Your task to perform on an android device: find which apps use the phone's location Image 0: 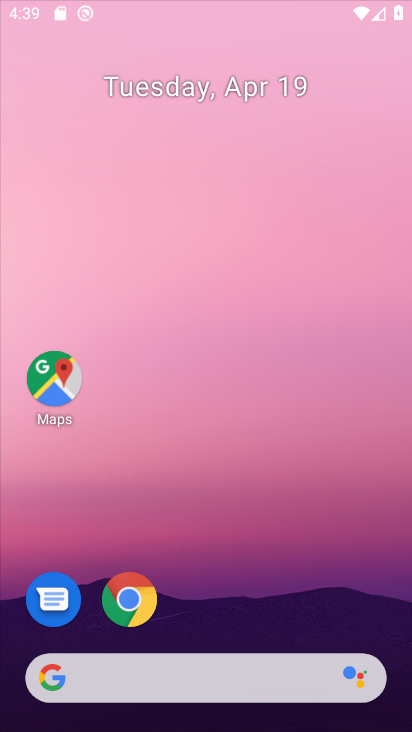
Step 0: click (364, 355)
Your task to perform on an android device: find which apps use the phone's location Image 1: 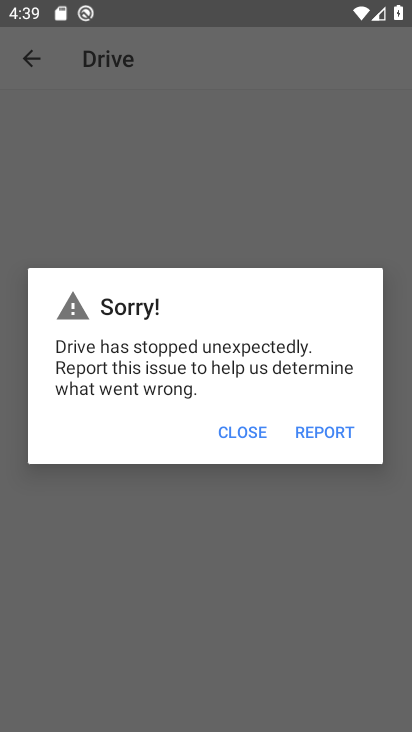
Step 1: drag from (276, 600) to (276, 532)
Your task to perform on an android device: find which apps use the phone's location Image 2: 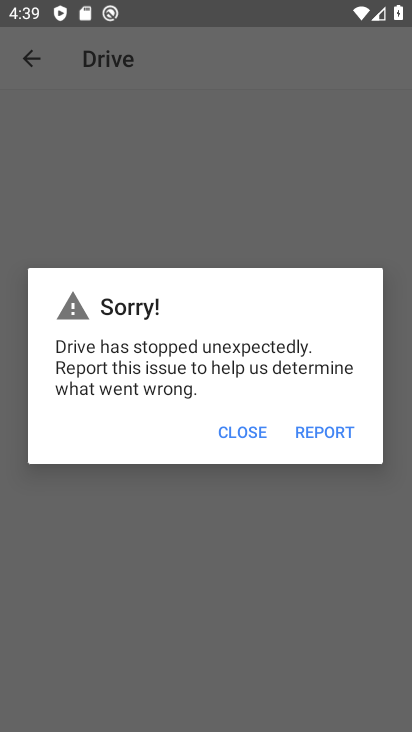
Step 2: click (252, 421)
Your task to perform on an android device: find which apps use the phone's location Image 3: 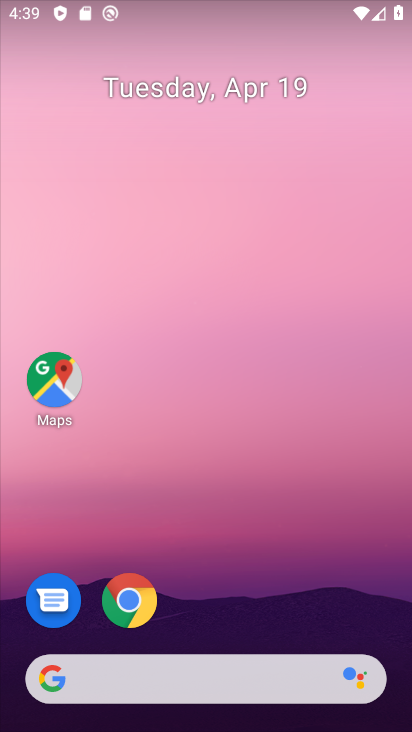
Step 3: drag from (261, 546) to (261, 21)
Your task to perform on an android device: find which apps use the phone's location Image 4: 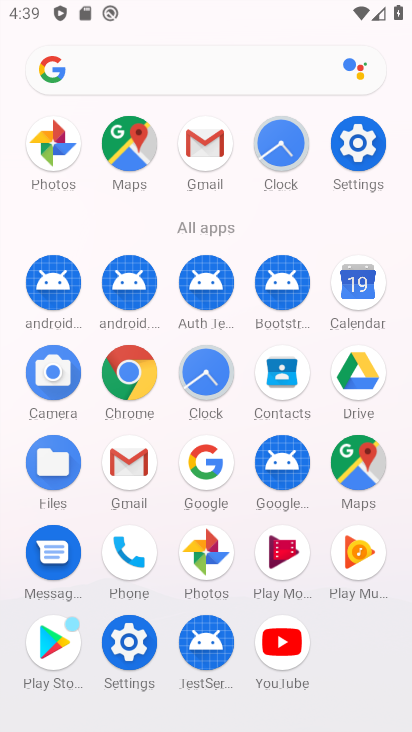
Step 4: click (359, 148)
Your task to perform on an android device: find which apps use the phone's location Image 5: 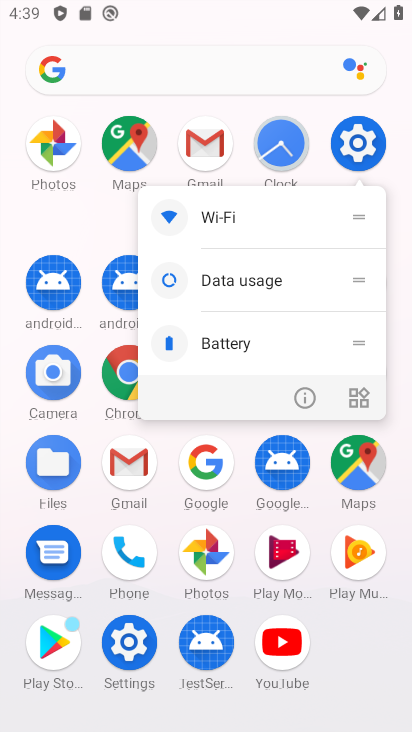
Step 5: click (359, 148)
Your task to perform on an android device: find which apps use the phone's location Image 6: 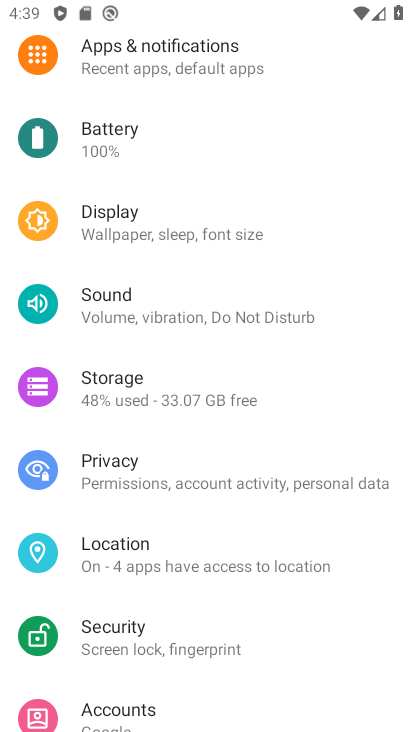
Step 6: click (193, 558)
Your task to perform on an android device: find which apps use the phone's location Image 7: 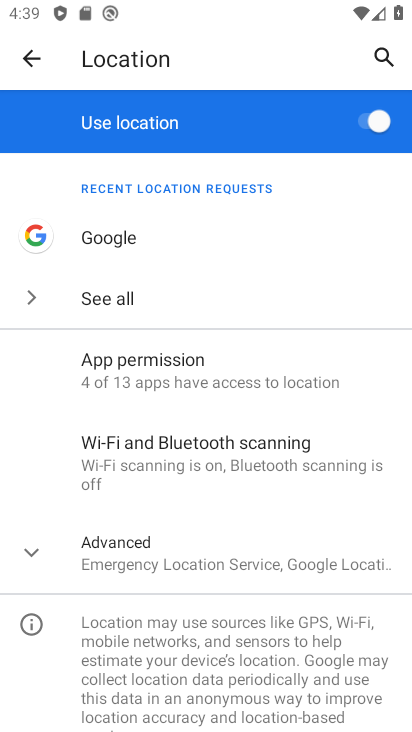
Step 7: click (131, 368)
Your task to perform on an android device: find which apps use the phone's location Image 8: 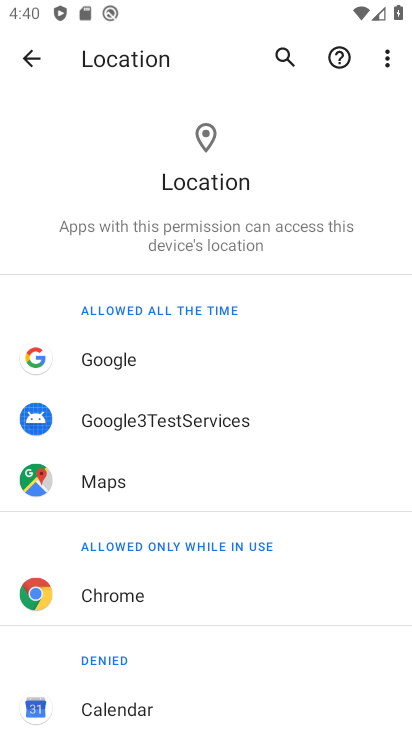
Step 8: task complete